Your task to perform on an android device: Open Yahoo.com Image 0: 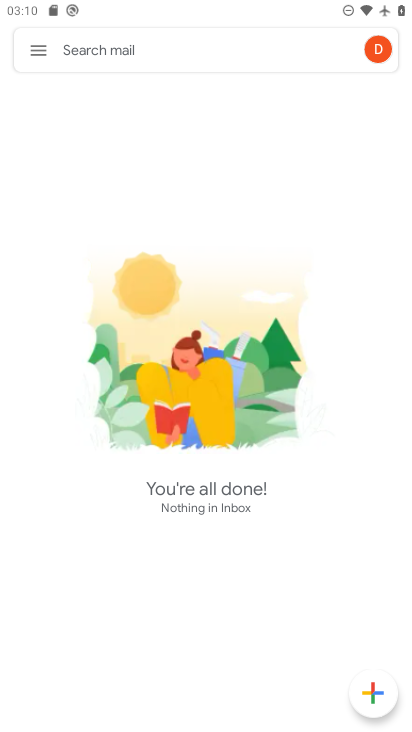
Step 0: press home button
Your task to perform on an android device: Open Yahoo.com Image 1: 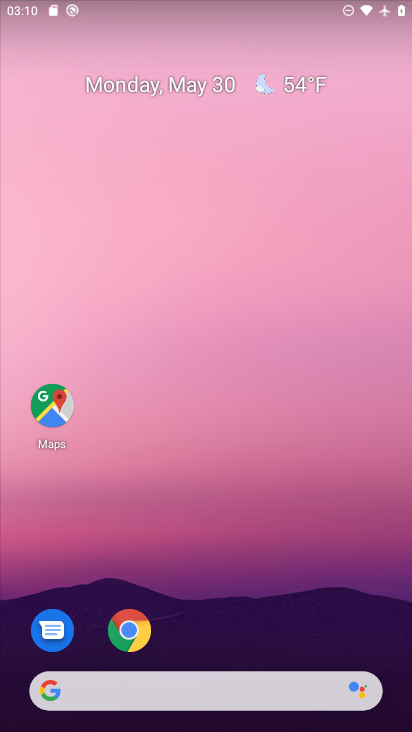
Step 1: click (134, 634)
Your task to perform on an android device: Open Yahoo.com Image 2: 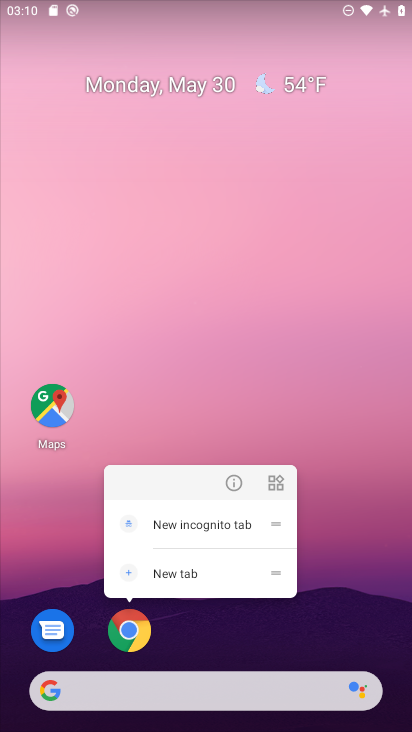
Step 2: click (128, 630)
Your task to perform on an android device: Open Yahoo.com Image 3: 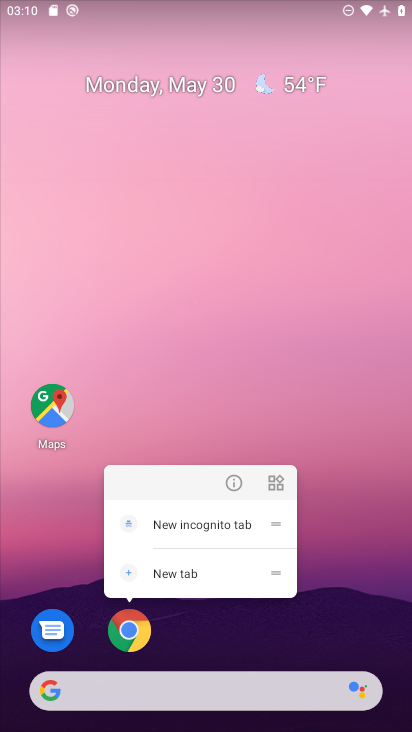
Step 3: click (128, 632)
Your task to perform on an android device: Open Yahoo.com Image 4: 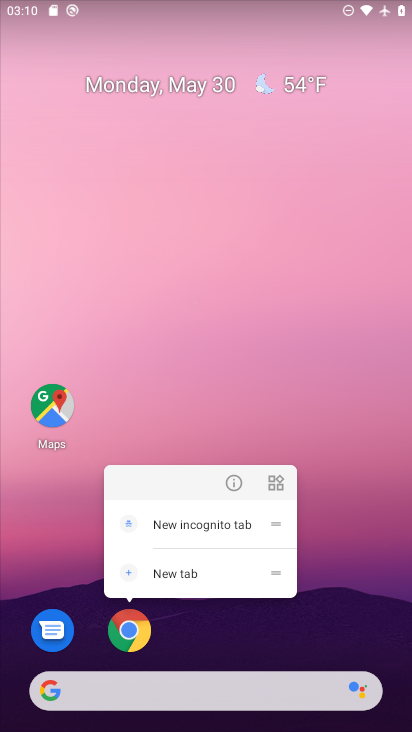
Step 4: click (126, 633)
Your task to perform on an android device: Open Yahoo.com Image 5: 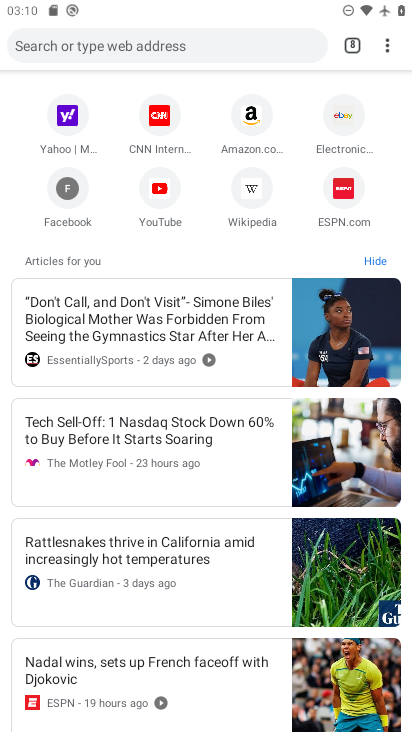
Step 5: click (57, 117)
Your task to perform on an android device: Open Yahoo.com Image 6: 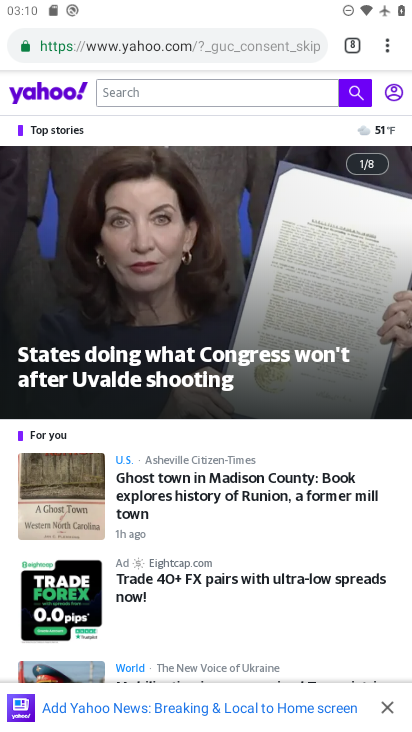
Step 6: task complete